Your task to perform on an android device: Open Maps and search for coffee Image 0: 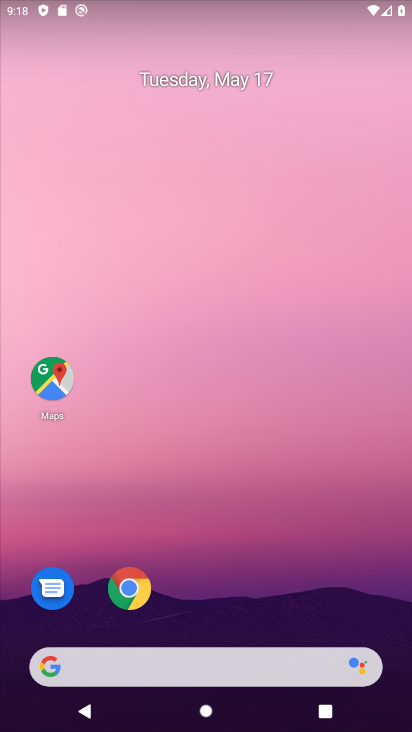
Step 0: click (25, 359)
Your task to perform on an android device: Open Maps and search for coffee Image 1: 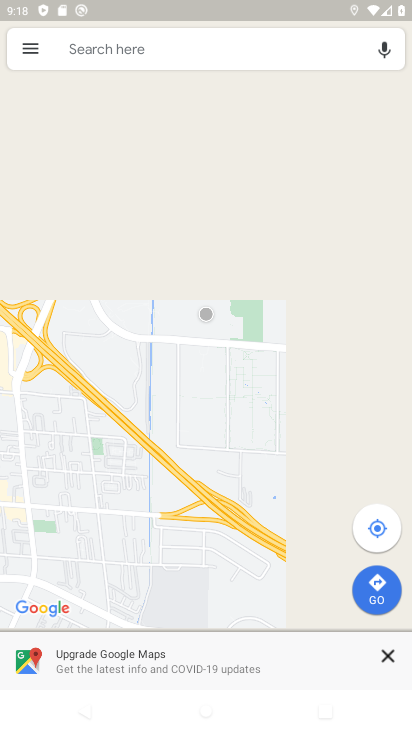
Step 1: click (169, 62)
Your task to perform on an android device: Open Maps and search for coffee Image 2: 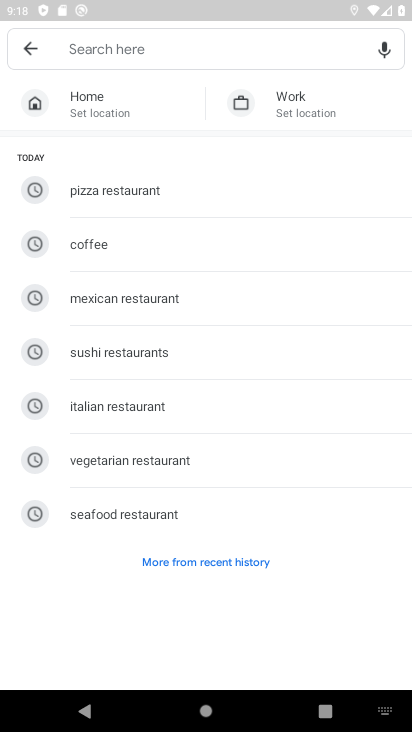
Step 2: click (54, 248)
Your task to perform on an android device: Open Maps and search for coffee Image 3: 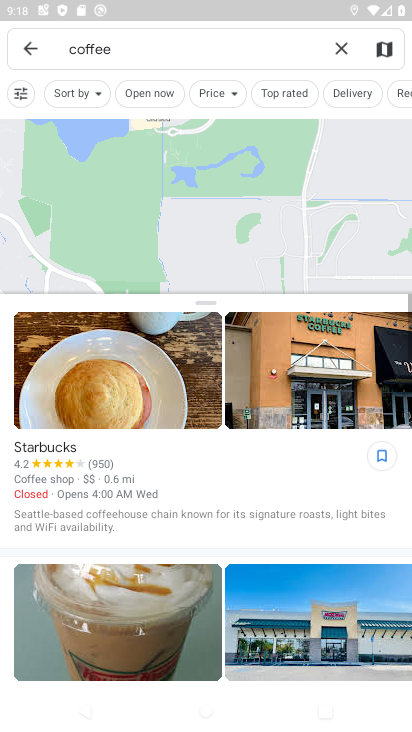
Step 3: task complete